Your task to perform on an android device: Open my contact list Image 0: 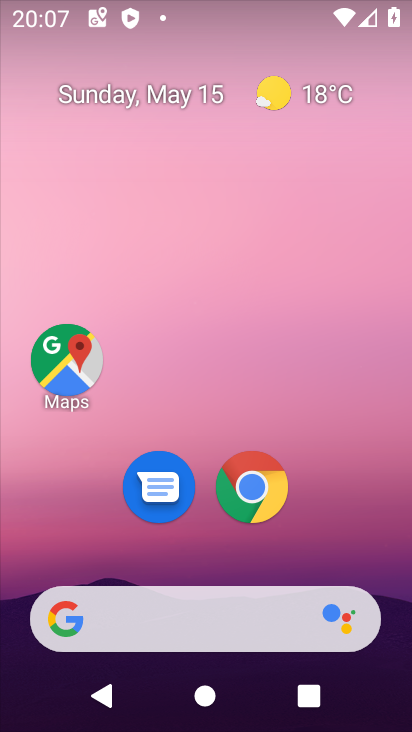
Step 0: drag from (400, 646) to (401, 196)
Your task to perform on an android device: Open my contact list Image 1: 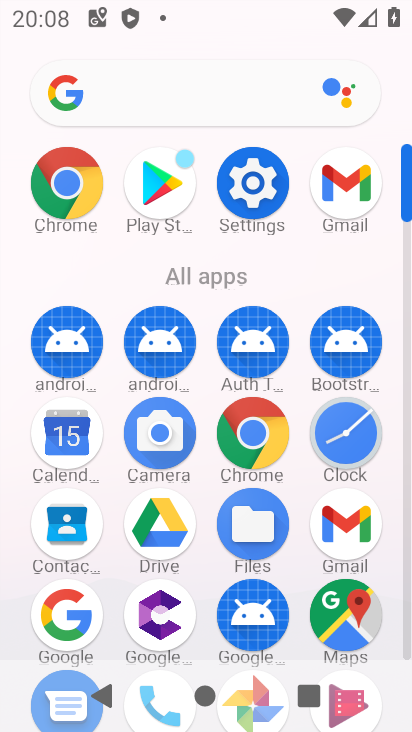
Step 1: click (64, 530)
Your task to perform on an android device: Open my contact list Image 2: 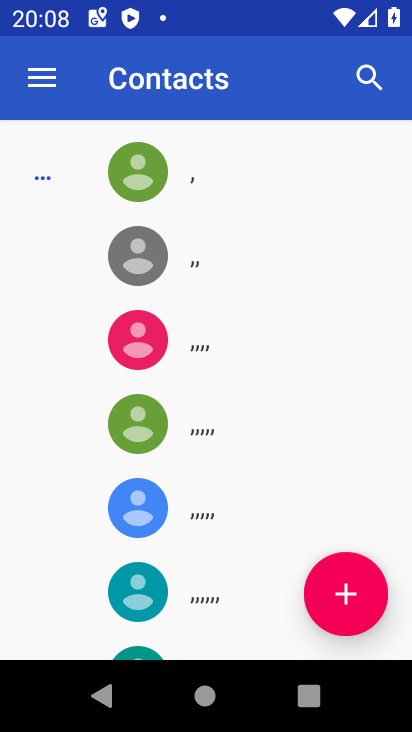
Step 2: task complete